Your task to perform on an android device: check android version Image 0: 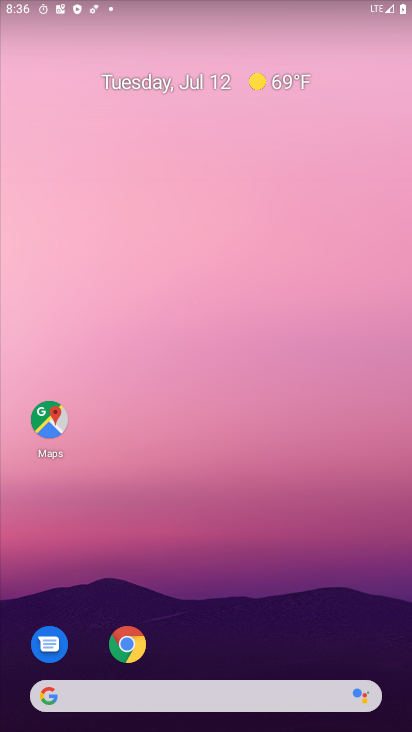
Step 0: drag from (220, 660) to (210, 46)
Your task to perform on an android device: check android version Image 1: 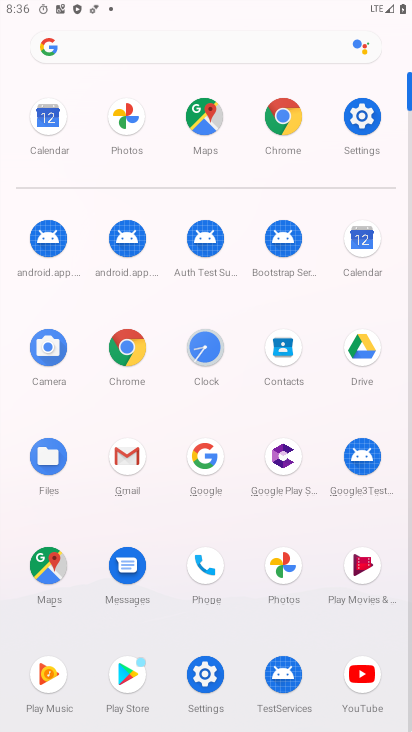
Step 1: click (200, 668)
Your task to perform on an android device: check android version Image 2: 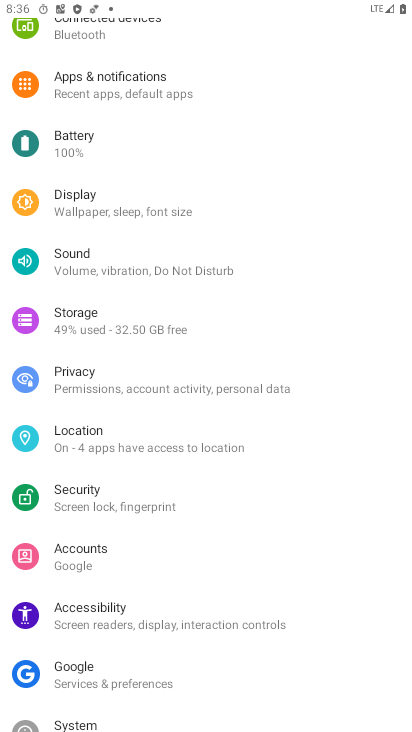
Step 2: drag from (174, 705) to (228, 82)
Your task to perform on an android device: check android version Image 3: 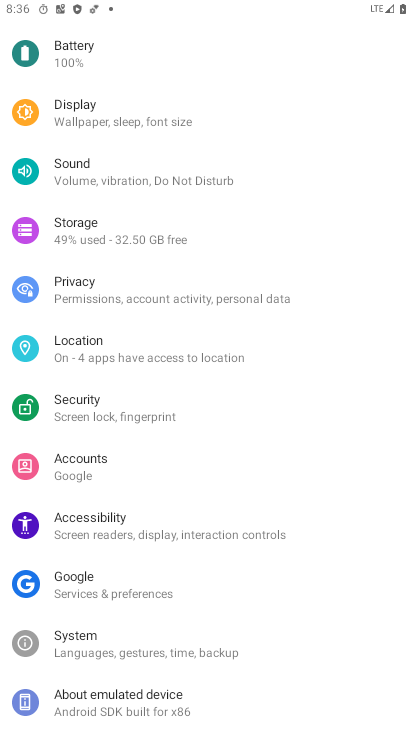
Step 3: click (198, 696)
Your task to perform on an android device: check android version Image 4: 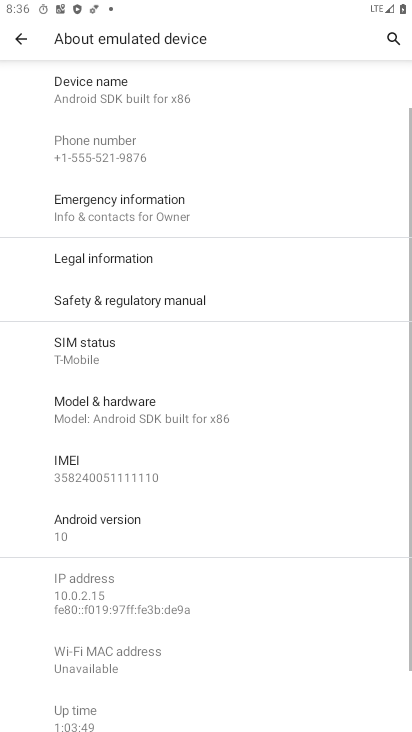
Step 4: click (93, 534)
Your task to perform on an android device: check android version Image 5: 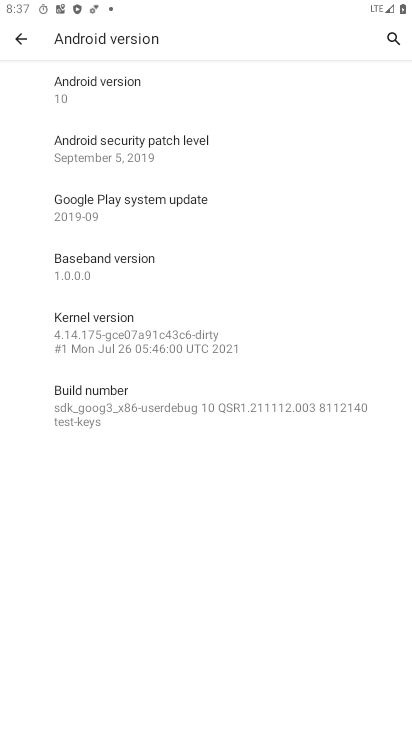
Step 5: task complete